Your task to perform on an android device: Open settings on Google Maps Image 0: 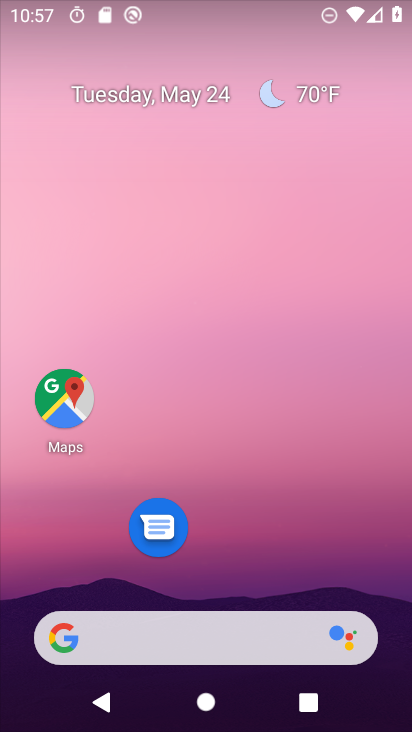
Step 0: drag from (268, 514) to (268, 174)
Your task to perform on an android device: Open settings on Google Maps Image 1: 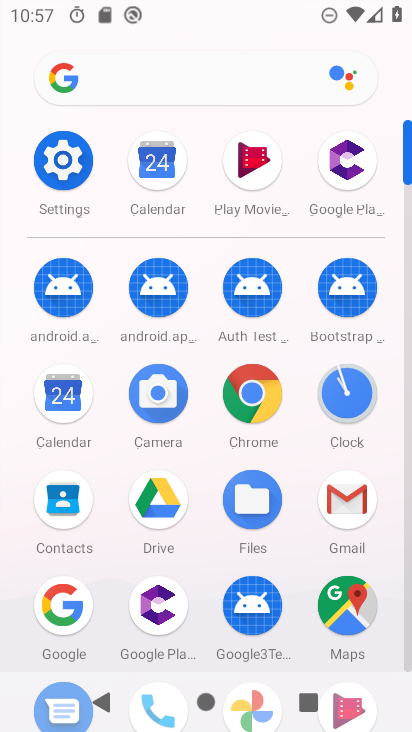
Step 1: click (344, 604)
Your task to perform on an android device: Open settings on Google Maps Image 2: 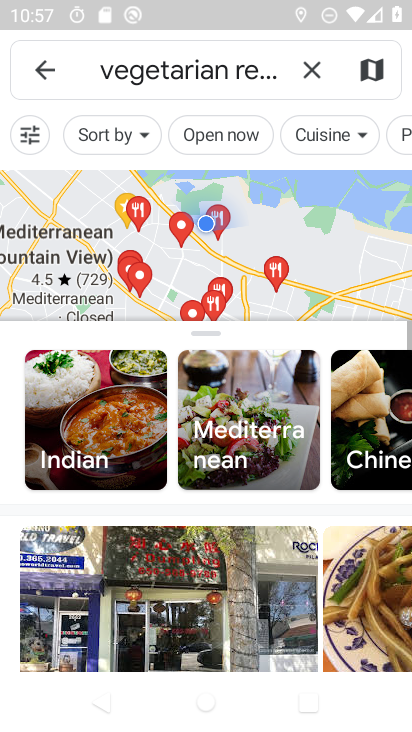
Step 2: press back button
Your task to perform on an android device: Open settings on Google Maps Image 3: 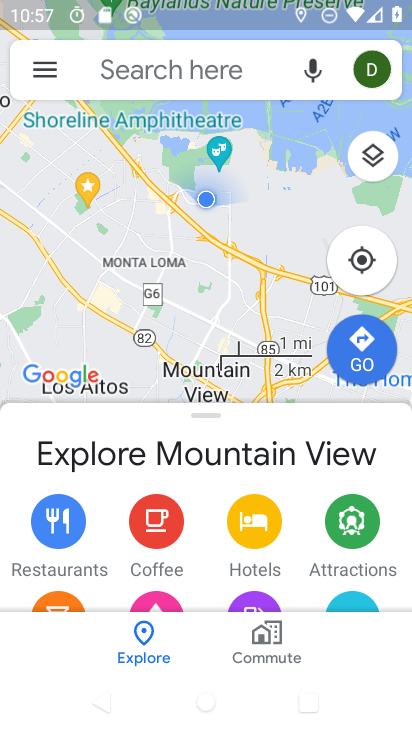
Step 3: click (52, 69)
Your task to perform on an android device: Open settings on Google Maps Image 4: 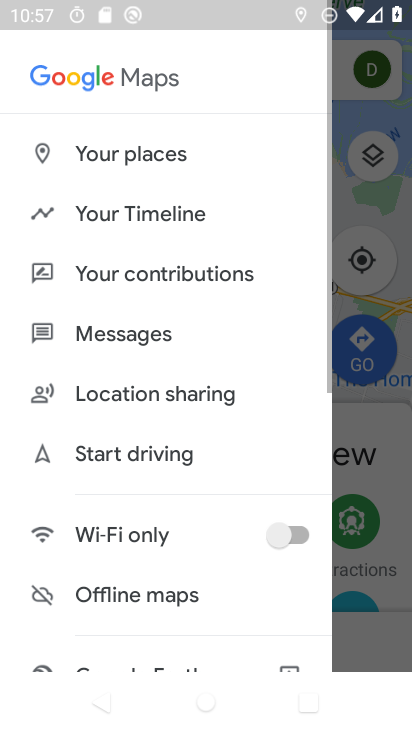
Step 4: drag from (152, 588) to (164, 86)
Your task to perform on an android device: Open settings on Google Maps Image 5: 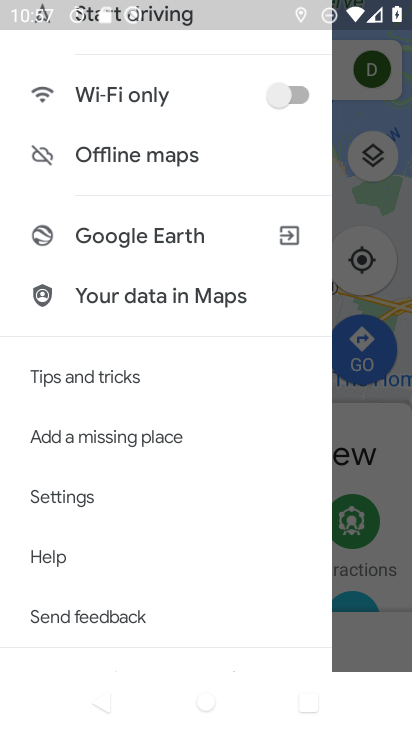
Step 5: click (70, 497)
Your task to perform on an android device: Open settings on Google Maps Image 6: 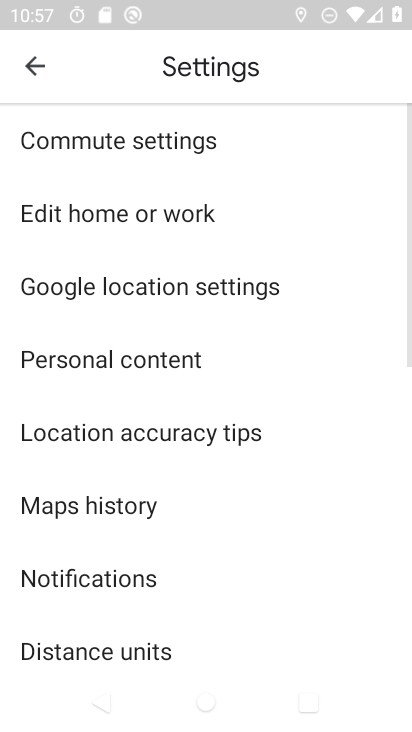
Step 6: task complete